Your task to perform on an android device: turn notification dots on Image 0: 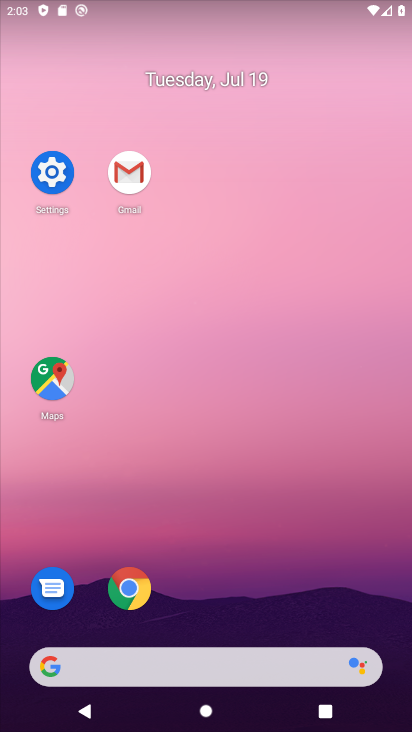
Step 0: click (43, 174)
Your task to perform on an android device: turn notification dots on Image 1: 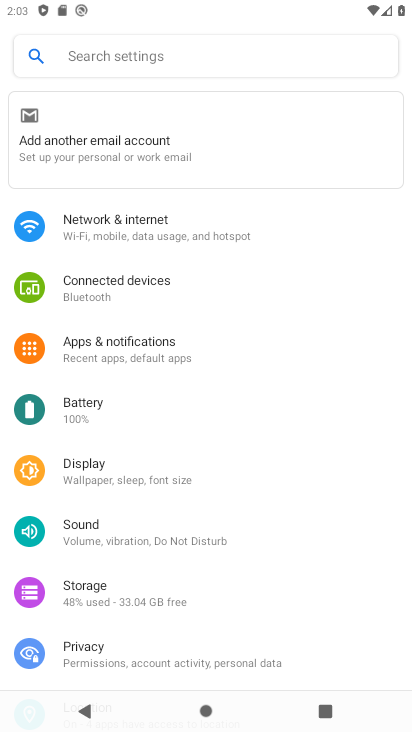
Step 1: click (172, 351)
Your task to perform on an android device: turn notification dots on Image 2: 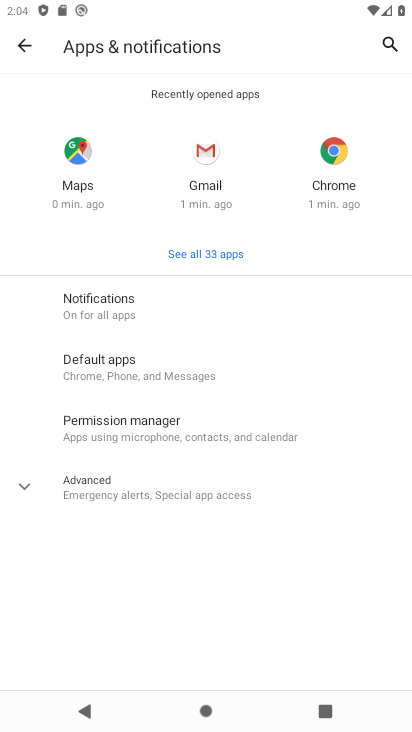
Step 2: click (164, 487)
Your task to perform on an android device: turn notification dots on Image 3: 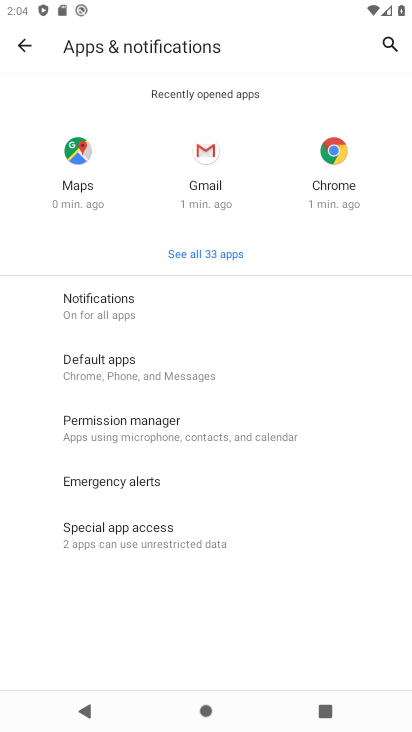
Step 3: click (151, 311)
Your task to perform on an android device: turn notification dots on Image 4: 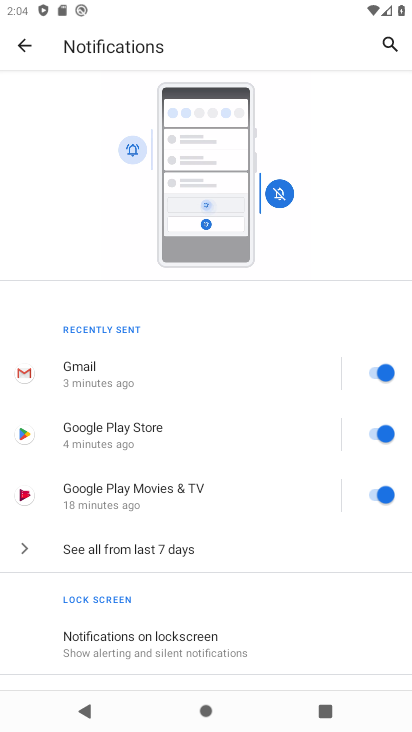
Step 4: drag from (229, 621) to (204, 299)
Your task to perform on an android device: turn notification dots on Image 5: 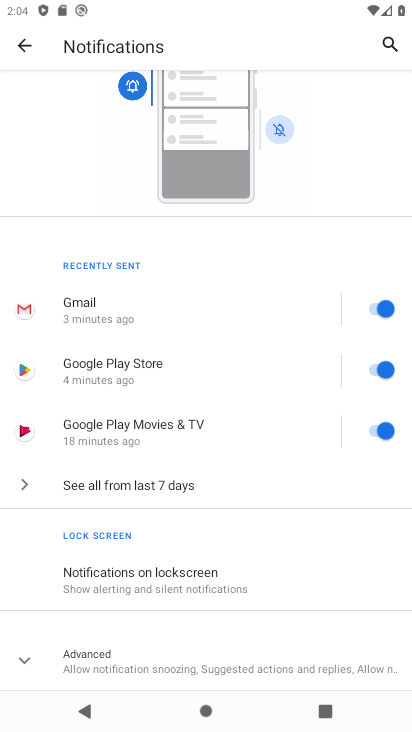
Step 5: click (172, 645)
Your task to perform on an android device: turn notification dots on Image 6: 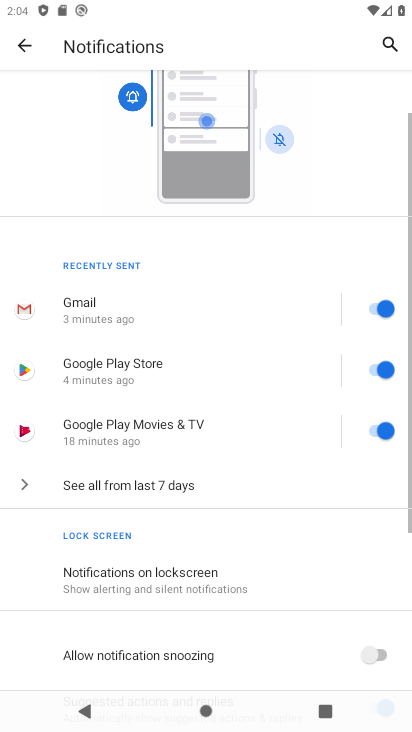
Step 6: task complete